Your task to perform on an android device: How far is the moon? Image 0: 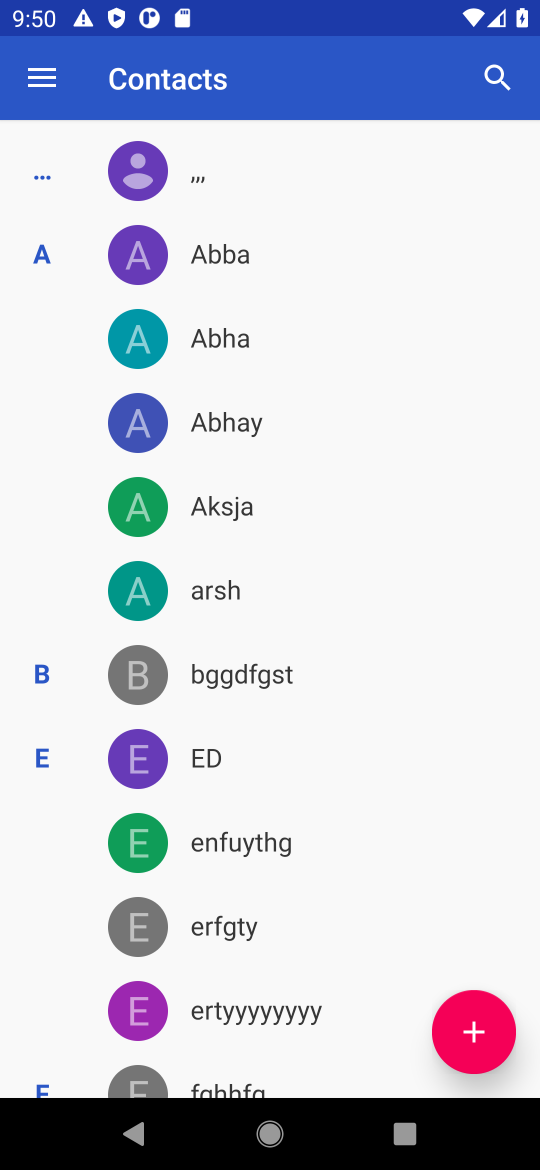
Step 0: press home button
Your task to perform on an android device: How far is the moon? Image 1: 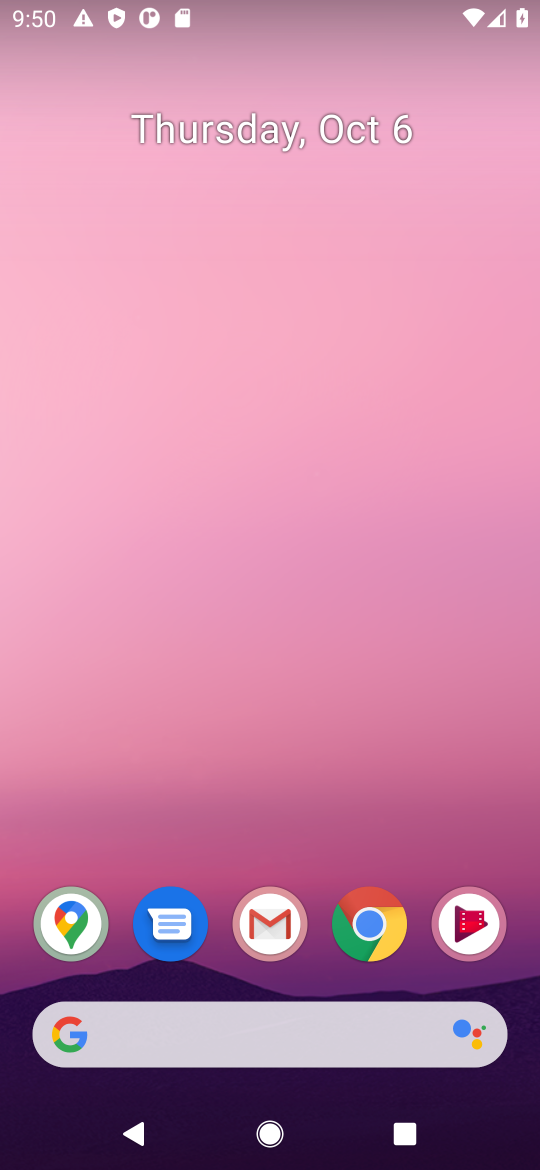
Step 1: click (371, 916)
Your task to perform on an android device: How far is the moon? Image 2: 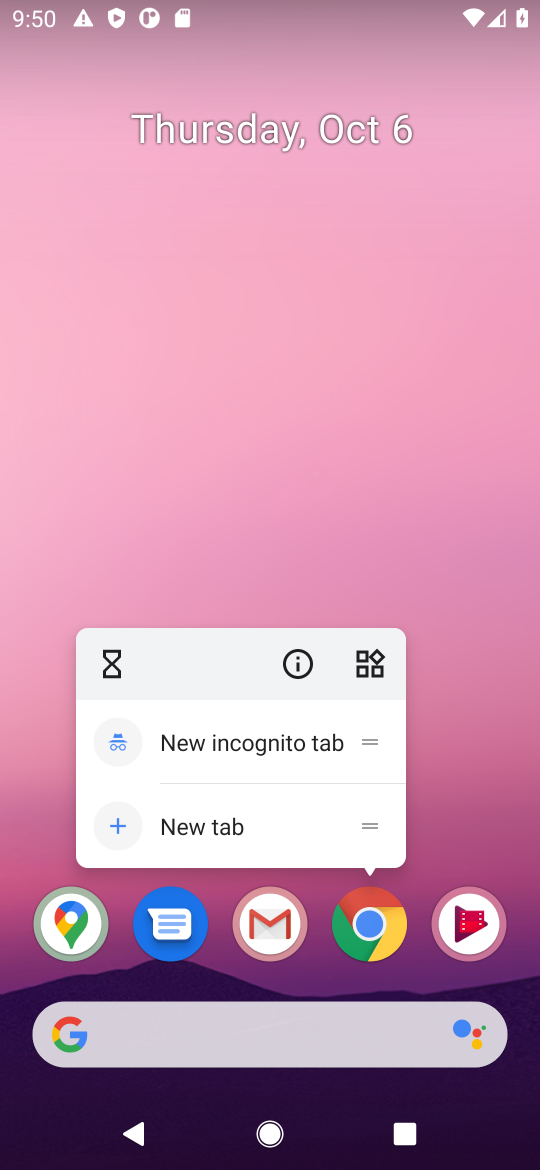
Step 2: click (369, 922)
Your task to perform on an android device: How far is the moon? Image 3: 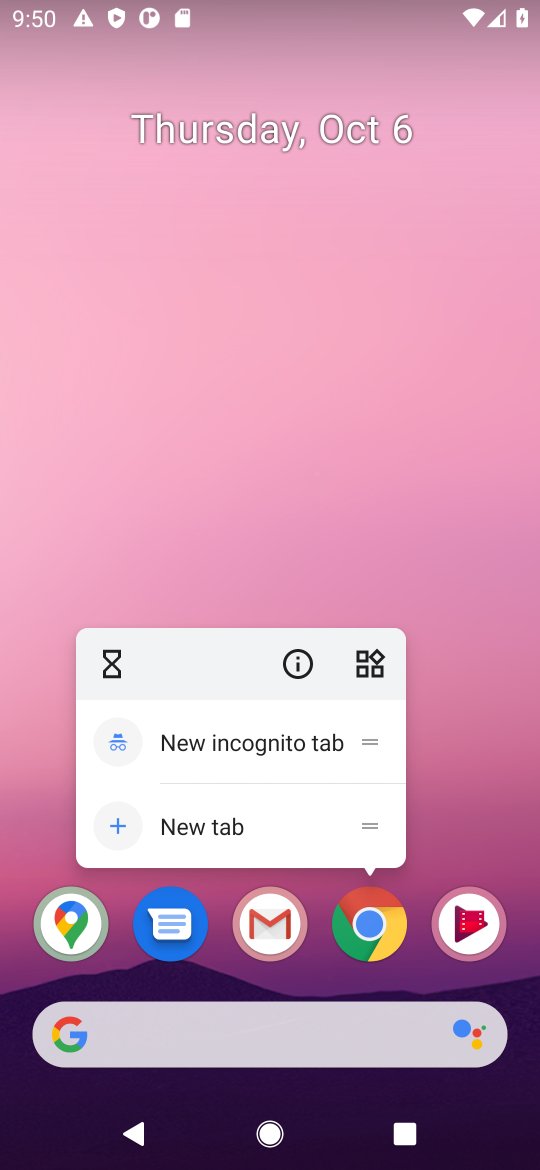
Step 3: click (369, 922)
Your task to perform on an android device: How far is the moon? Image 4: 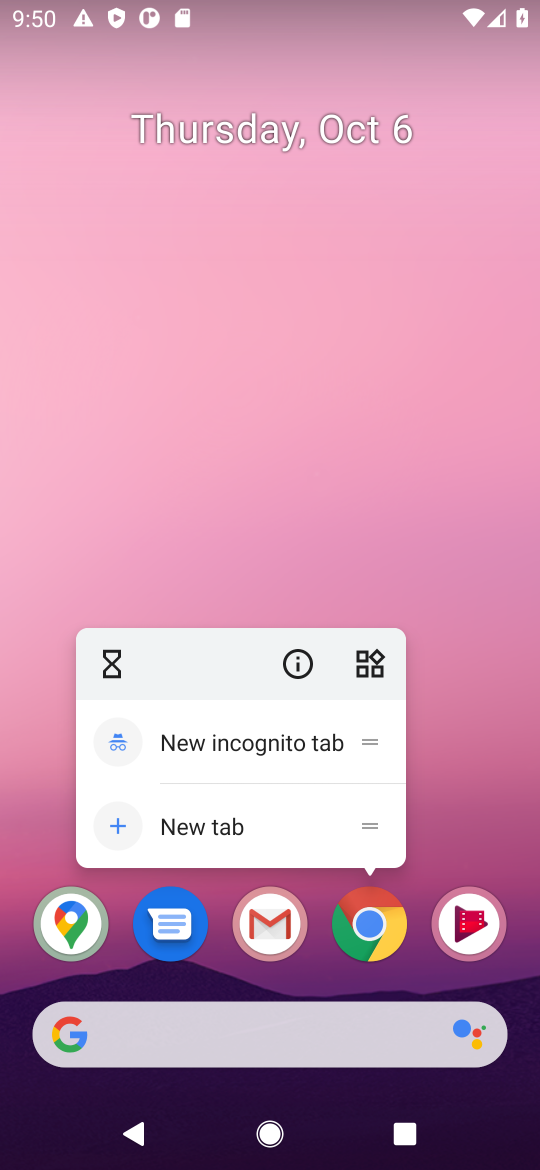
Step 4: click (370, 915)
Your task to perform on an android device: How far is the moon? Image 5: 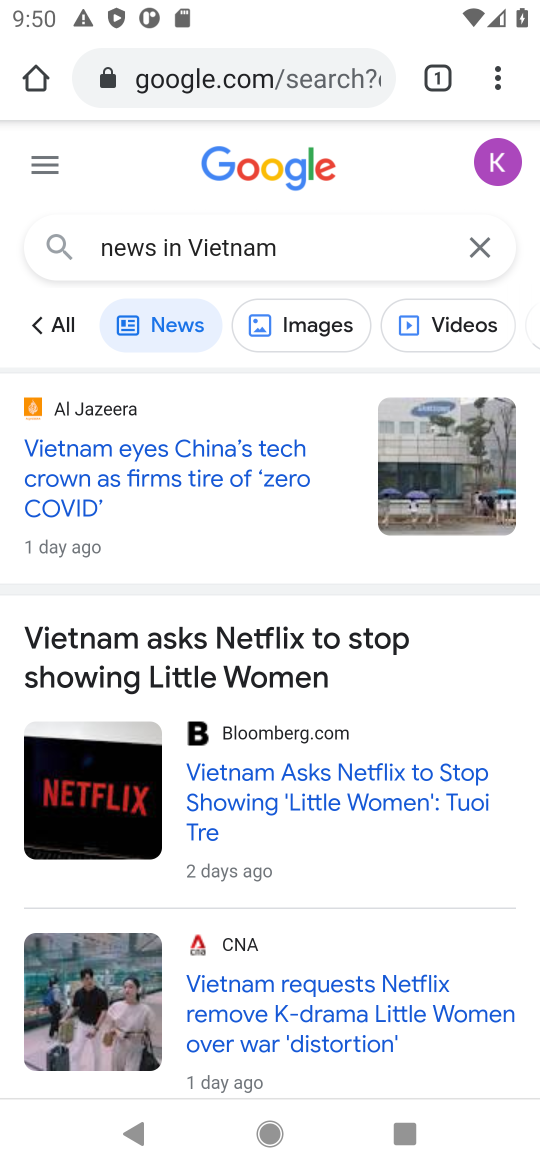
Step 5: click (344, 74)
Your task to perform on an android device: How far is the moon? Image 6: 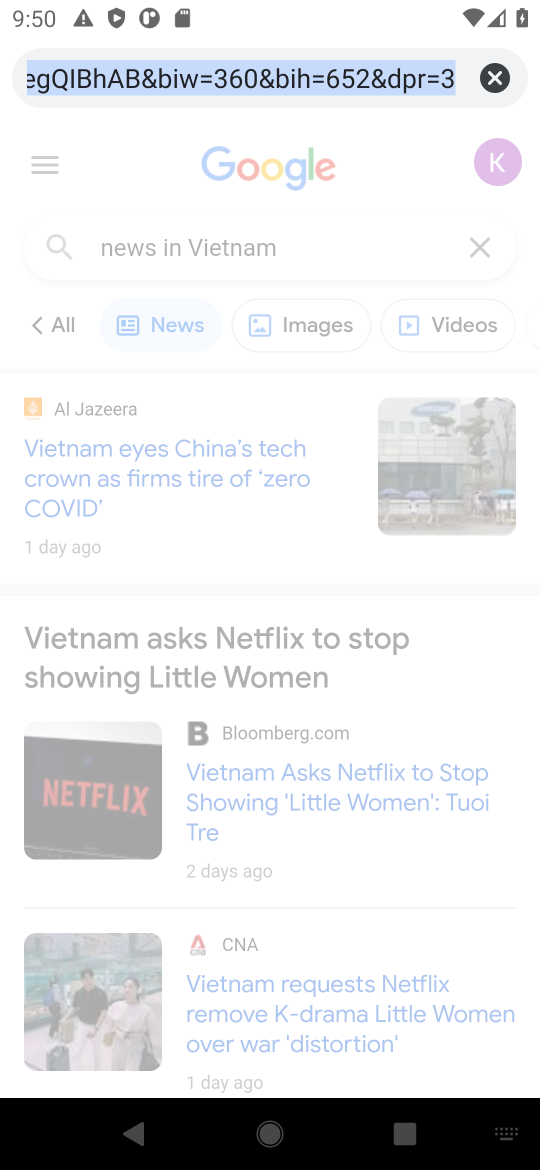
Step 6: click (497, 75)
Your task to perform on an android device: How far is the moon? Image 7: 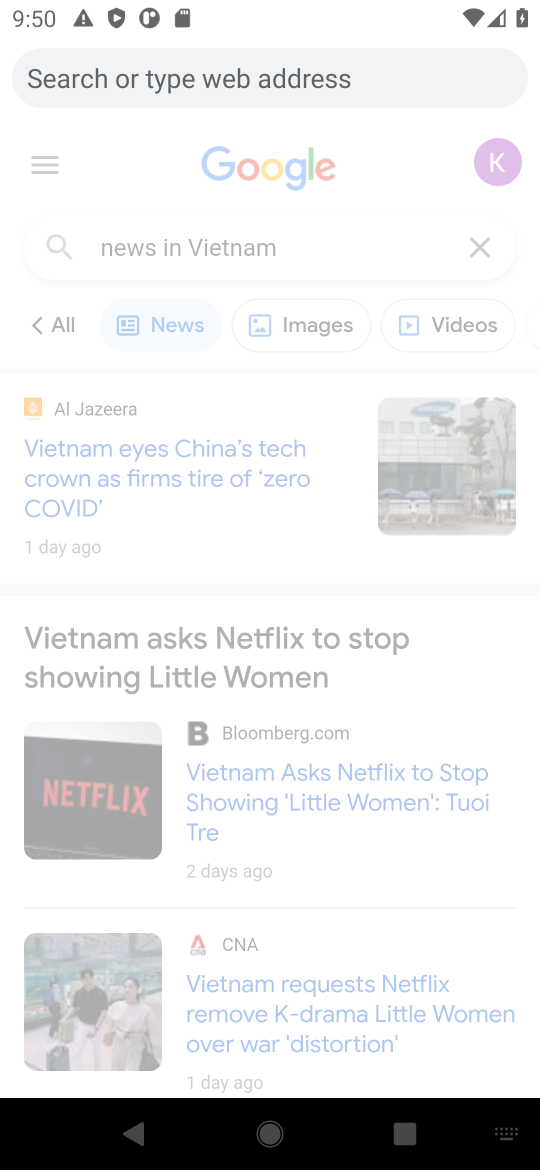
Step 7: type "How far is the moon"
Your task to perform on an android device: How far is the moon? Image 8: 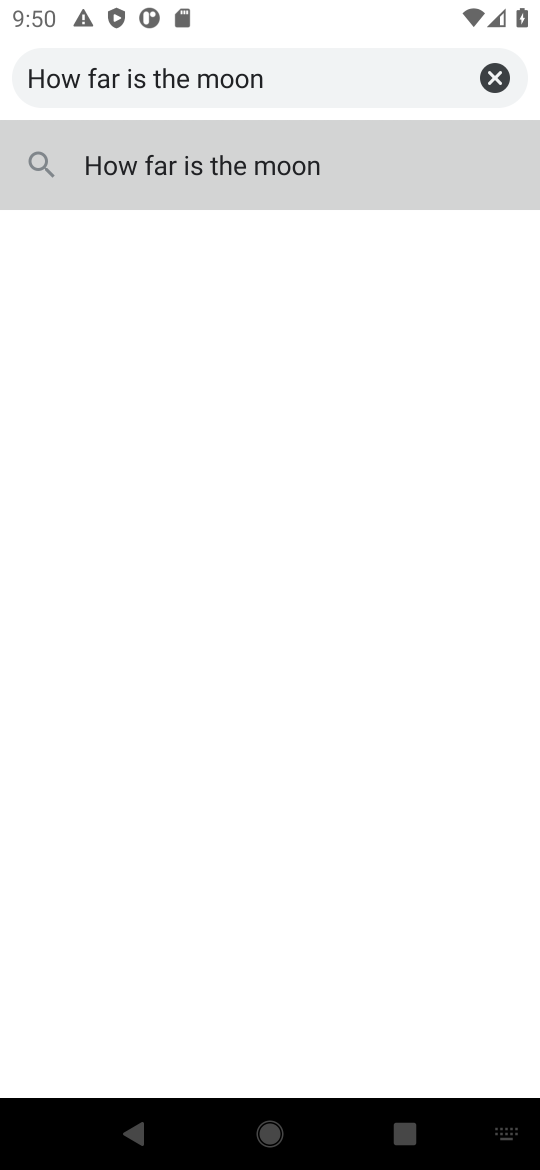
Step 8: click (208, 165)
Your task to perform on an android device: How far is the moon? Image 9: 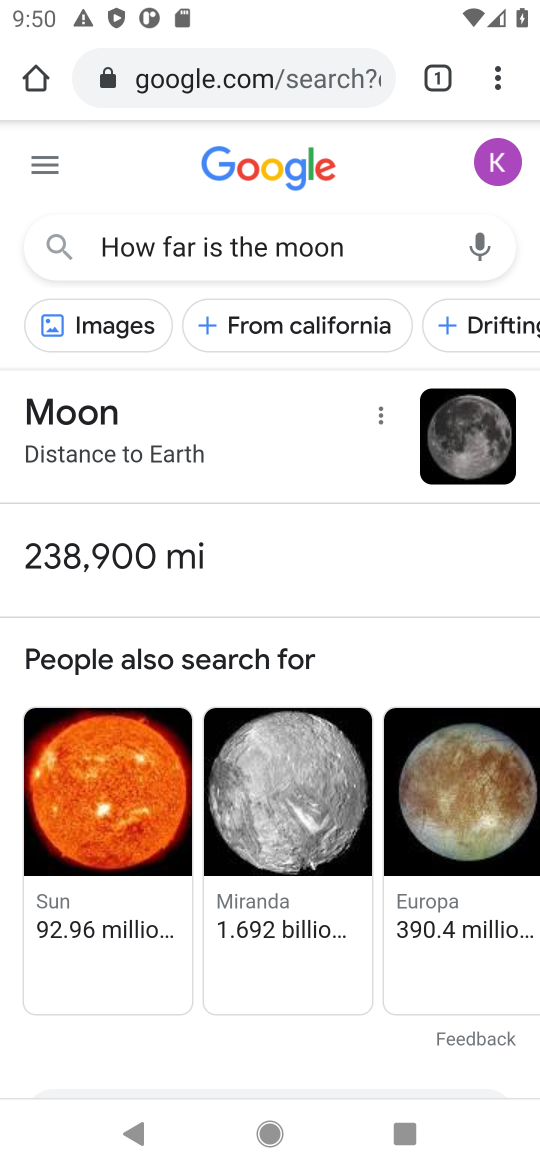
Step 9: drag from (307, 980) to (385, 314)
Your task to perform on an android device: How far is the moon? Image 10: 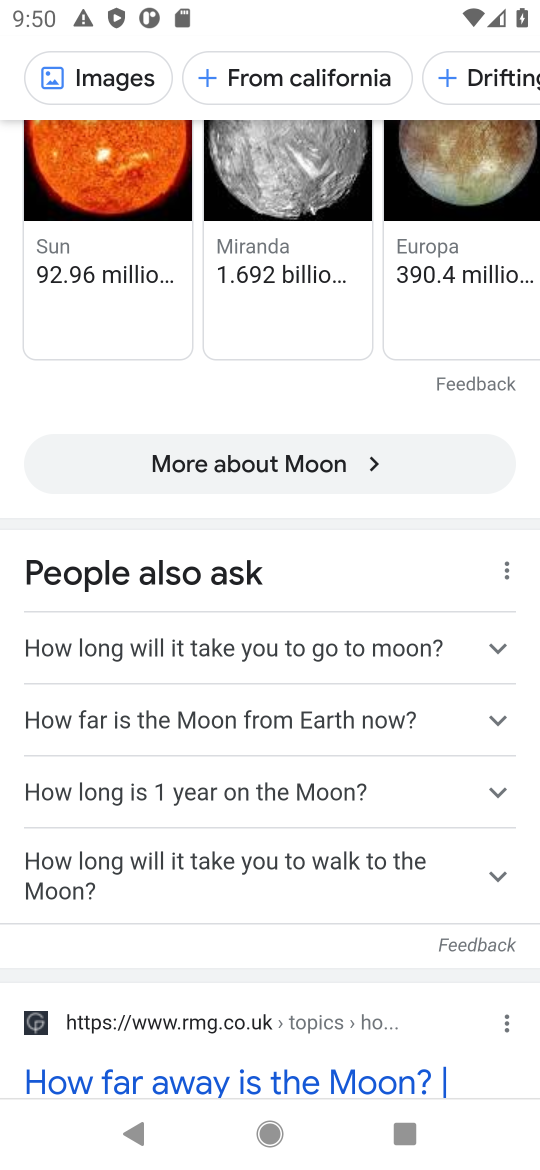
Step 10: drag from (345, 935) to (415, 523)
Your task to perform on an android device: How far is the moon? Image 11: 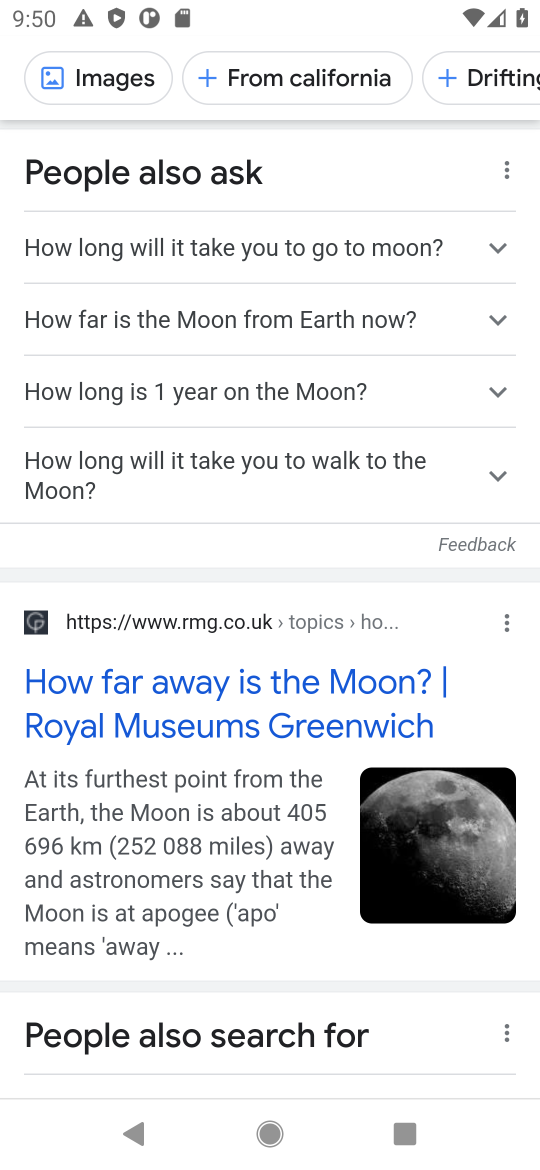
Step 11: click (218, 690)
Your task to perform on an android device: How far is the moon? Image 12: 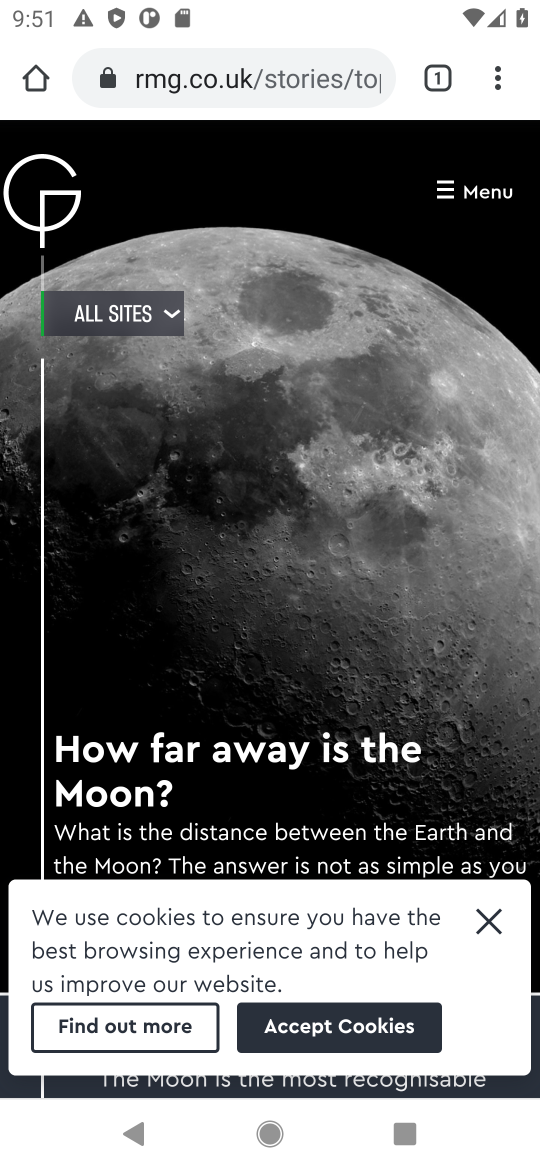
Step 12: click (487, 909)
Your task to perform on an android device: How far is the moon? Image 13: 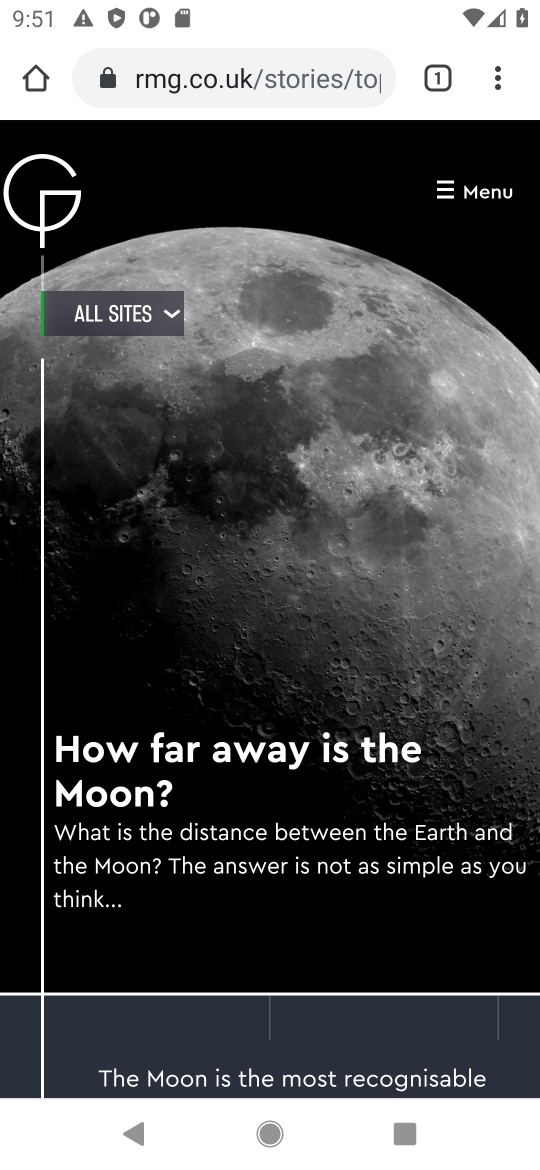
Step 13: task complete